Your task to perform on an android device: Search for sushi restaurants on Maps Image 0: 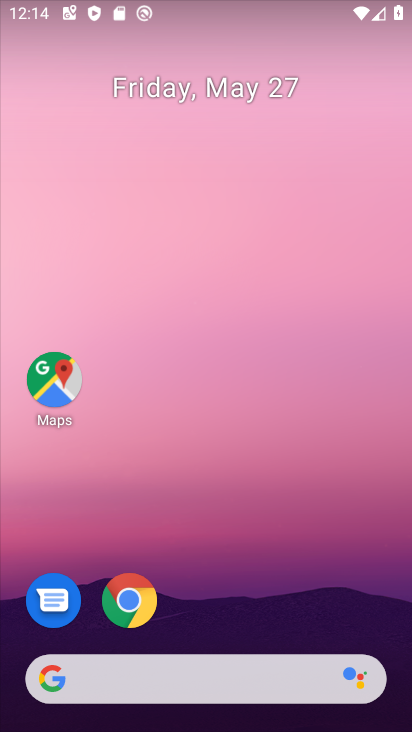
Step 0: drag from (225, 558) to (161, 31)
Your task to perform on an android device: Search for sushi restaurants on Maps Image 1: 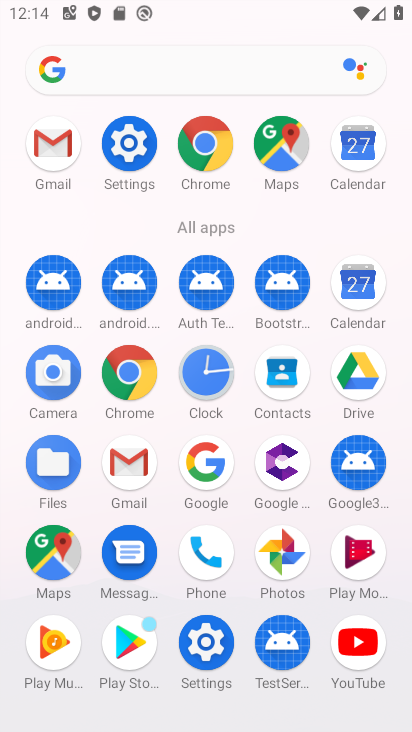
Step 1: drag from (13, 556) to (12, 257)
Your task to perform on an android device: Search for sushi restaurants on Maps Image 2: 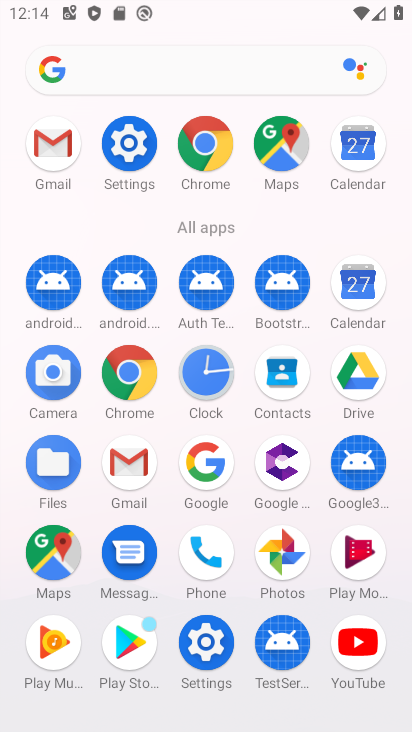
Step 2: click (51, 546)
Your task to perform on an android device: Search for sushi restaurants on Maps Image 3: 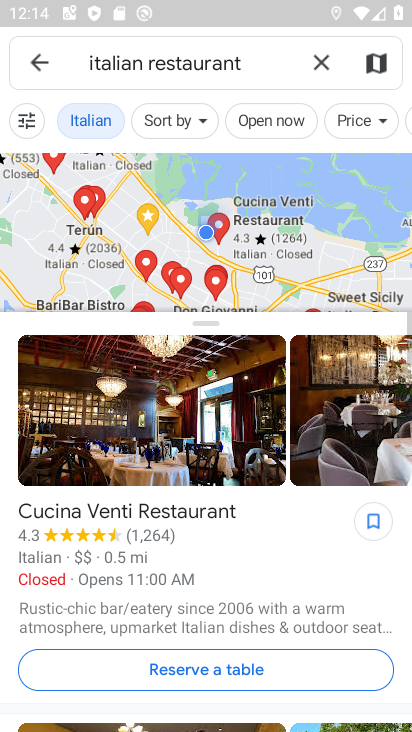
Step 3: click (325, 56)
Your task to perform on an android device: Search for sushi restaurants on Maps Image 4: 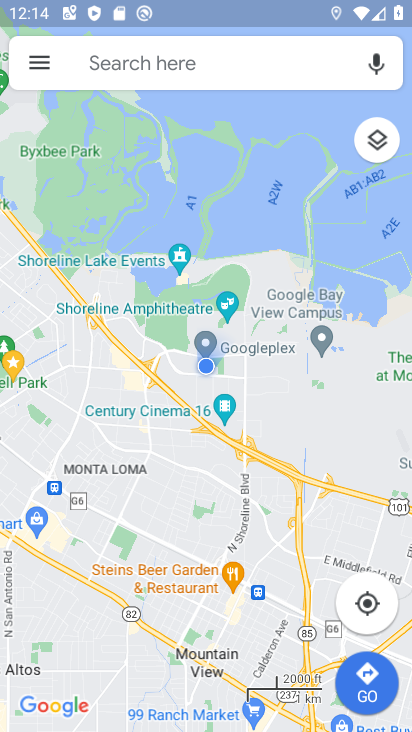
Step 4: click (266, 65)
Your task to perform on an android device: Search for sushi restaurants on Maps Image 5: 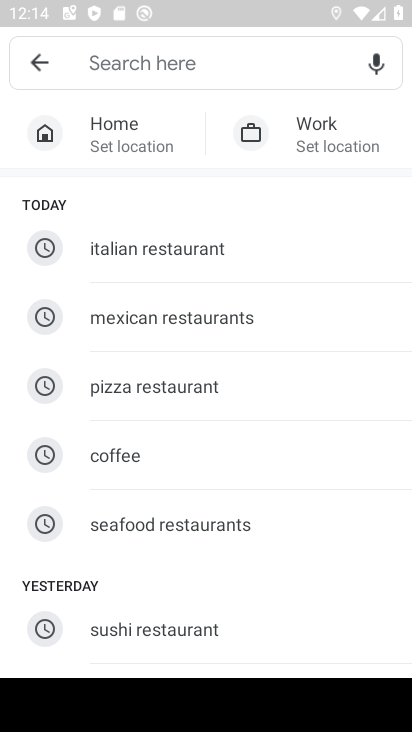
Step 5: drag from (264, 550) to (266, 295)
Your task to perform on an android device: Search for sushi restaurants on Maps Image 6: 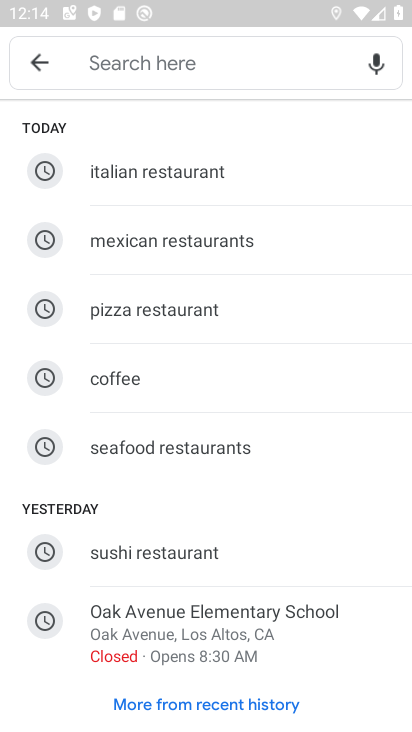
Step 6: click (156, 544)
Your task to perform on an android device: Search for sushi restaurants on Maps Image 7: 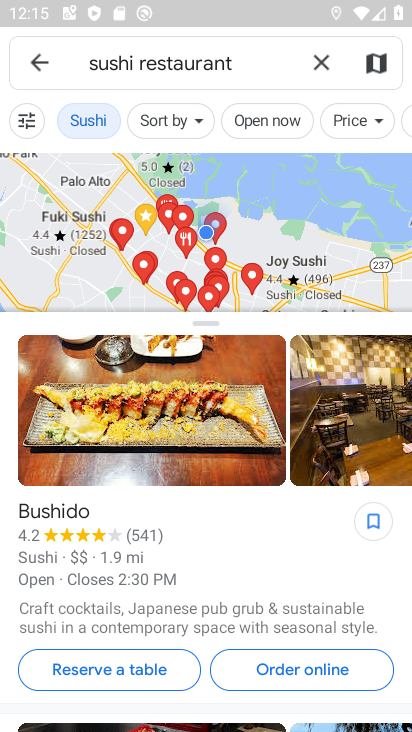
Step 7: task complete